Your task to perform on an android device: open app "HBO Max: Stream TV & Movies" Image 0: 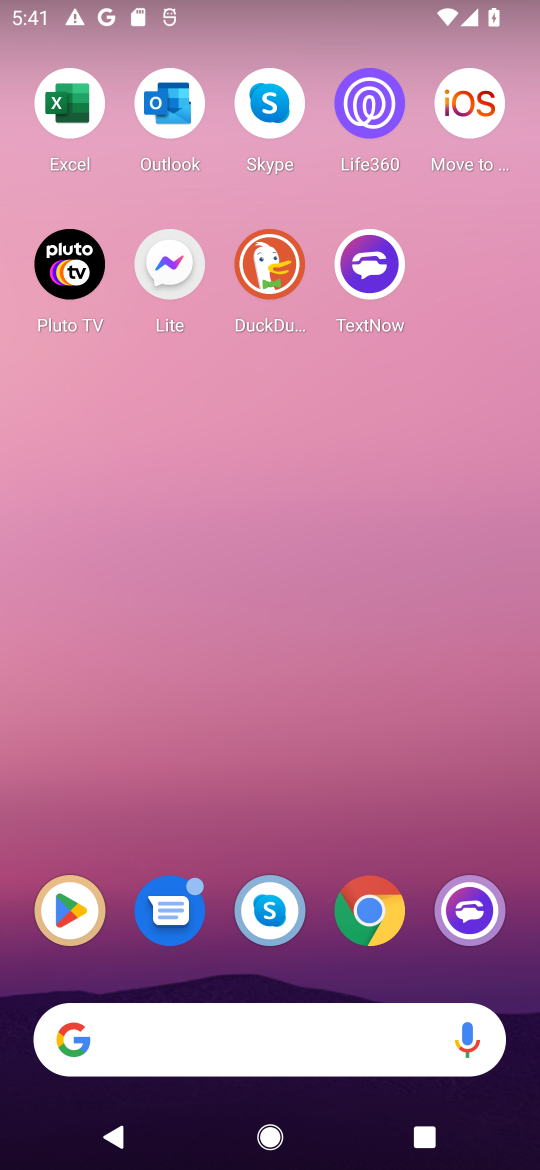
Step 0: drag from (277, 1005) to (277, 251)
Your task to perform on an android device: open app "HBO Max: Stream TV & Movies" Image 1: 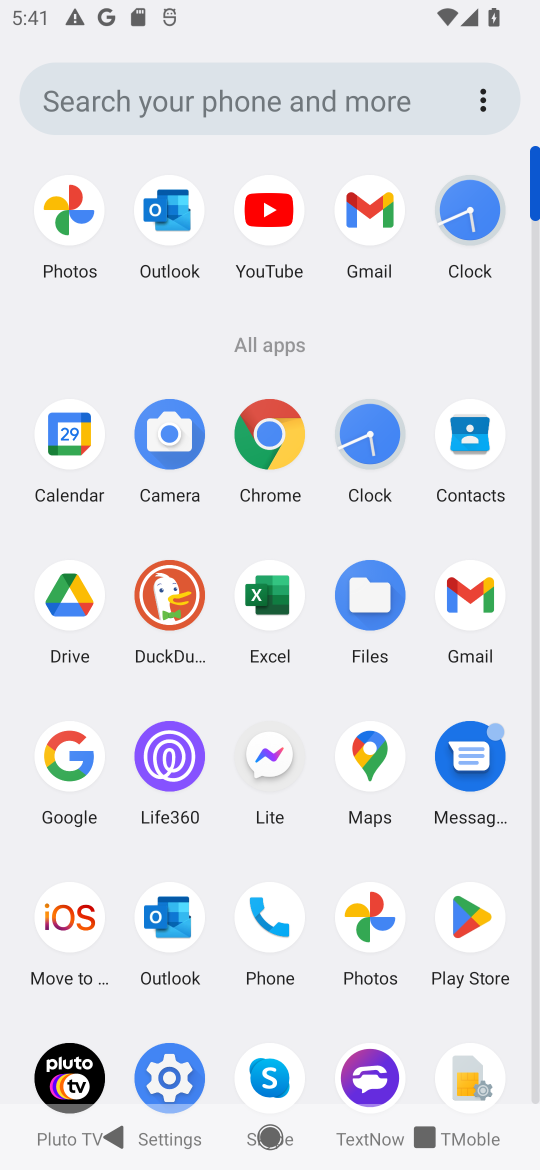
Step 1: click (479, 904)
Your task to perform on an android device: open app "HBO Max: Stream TV & Movies" Image 2: 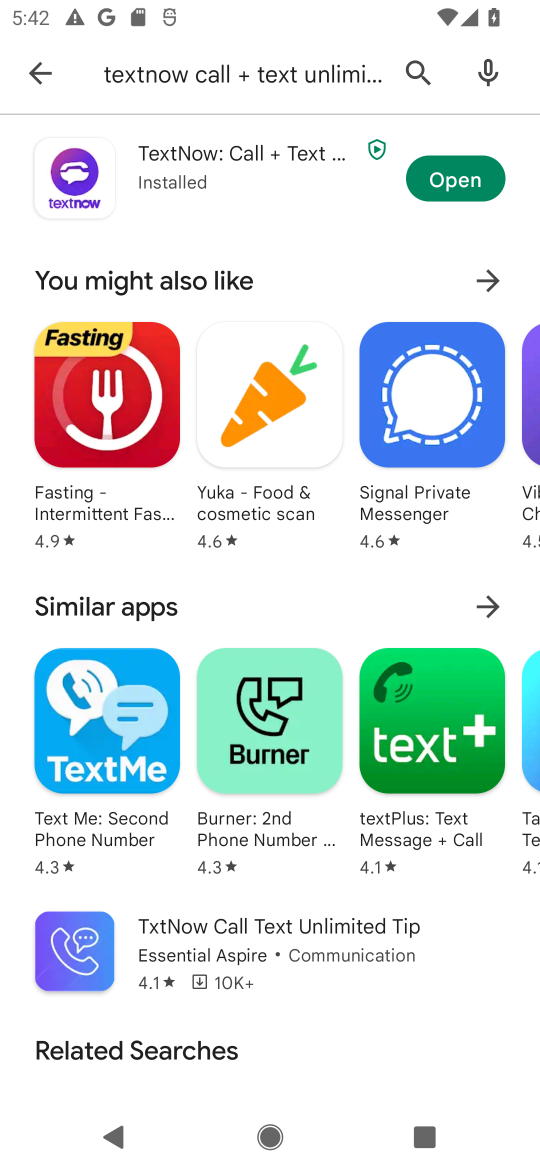
Step 2: click (41, 71)
Your task to perform on an android device: open app "HBO Max: Stream TV & Movies" Image 3: 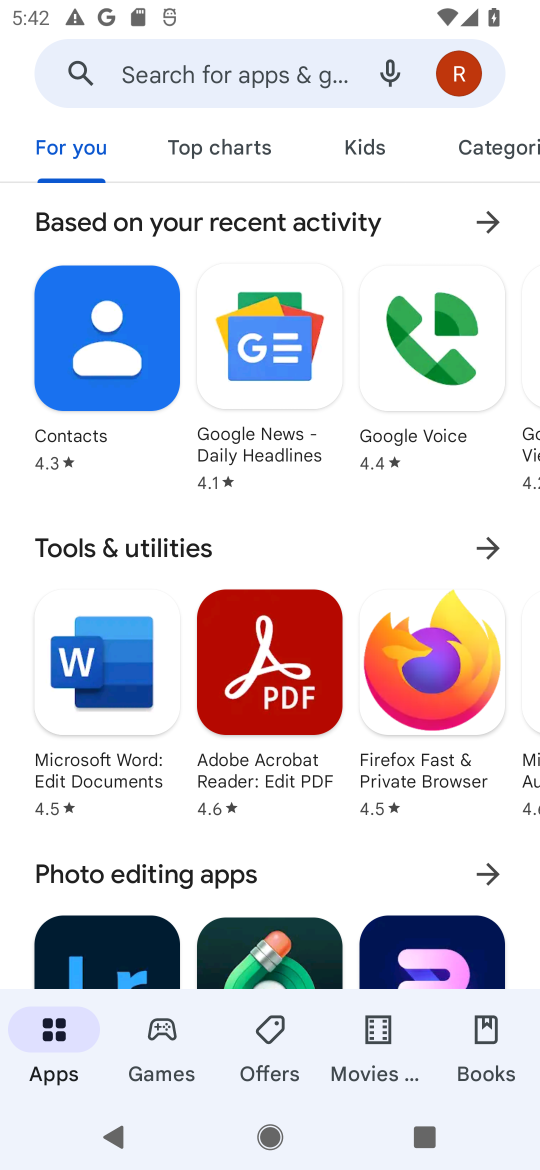
Step 3: click (151, 70)
Your task to perform on an android device: open app "HBO Max: Stream TV & Movies" Image 4: 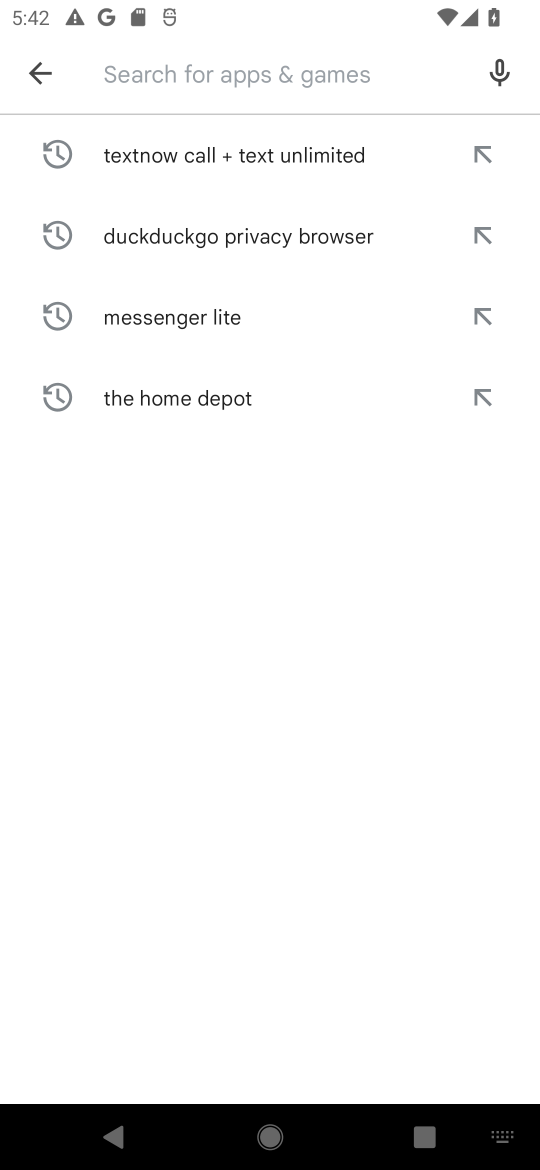
Step 4: type "HBO Max: Stream TV & Movies"
Your task to perform on an android device: open app "HBO Max: Stream TV & Movies" Image 5: 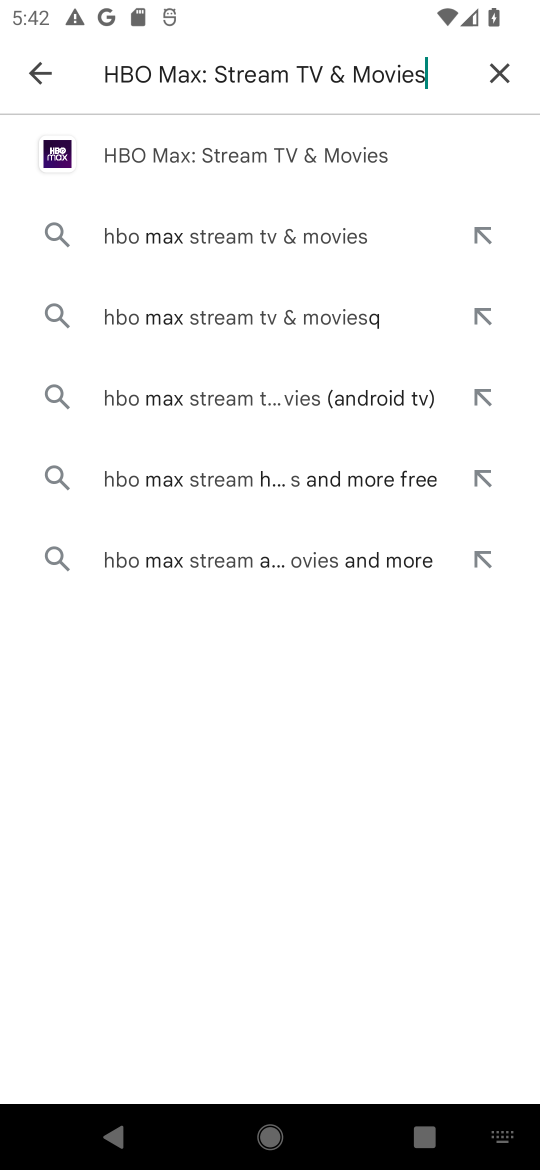
Step 5: click (216, 157)
Your task to perform on an android device: open app "HBO Max: Stream TV & Movies" Image 6: 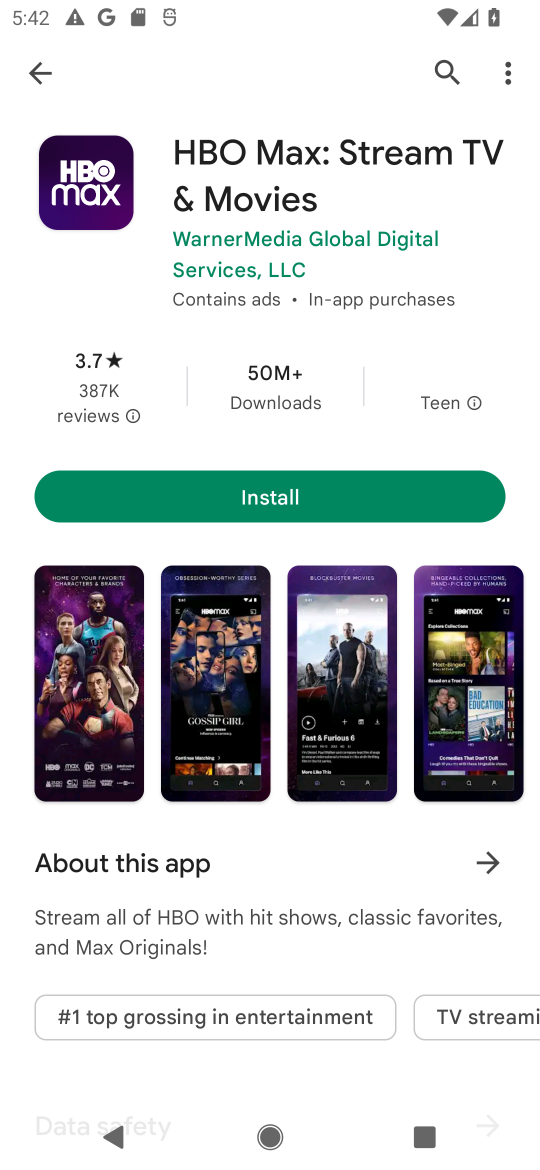
Step 6: click (313, 484)
Your task to perform on an android device: open app "HBO Max: Stream TV & Movies" Image 7: 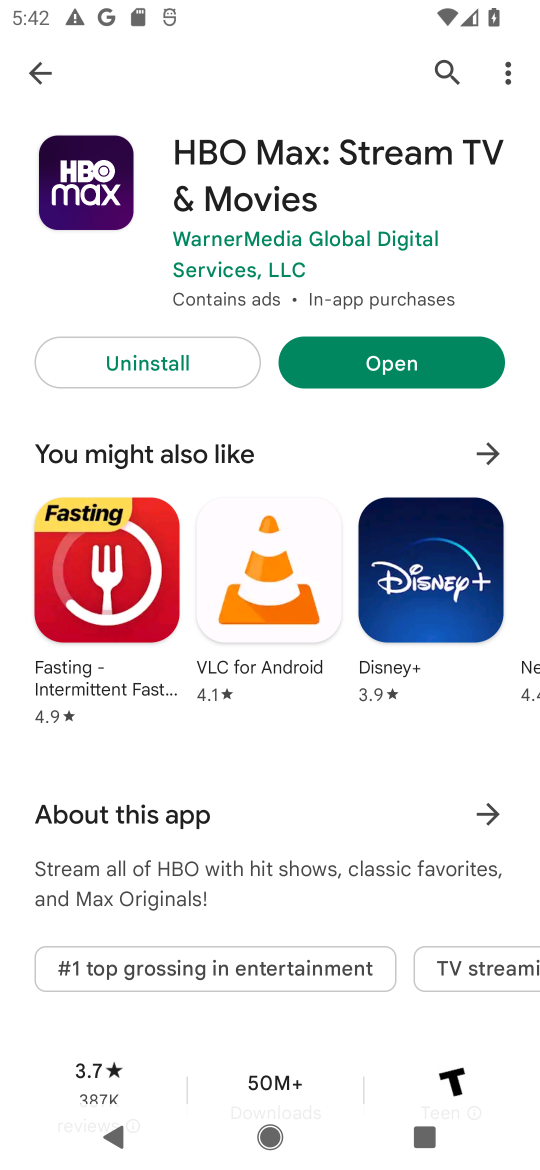
Step 7: click (385, 363)
Your task to perform on an android device: open app "HBO Max: Stream TV & Movies" Image 8: 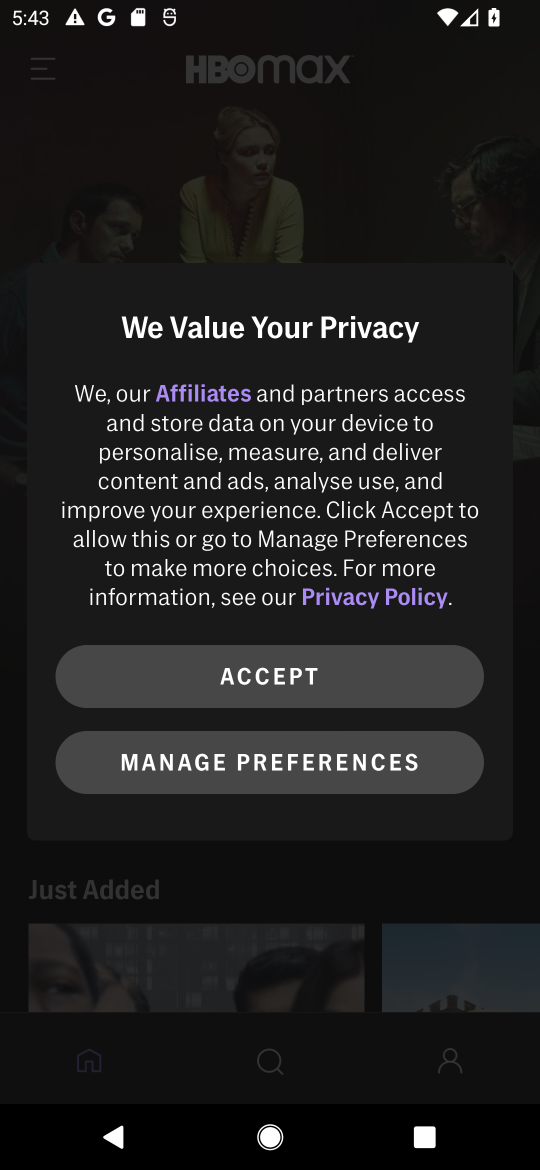
Step 8: task complete